Your task to perform on an android device: turn on showing notifications on the lock screen Image 0: 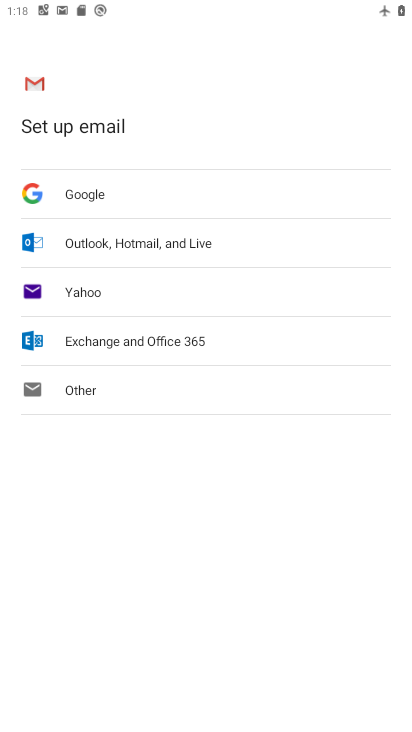
Step 0: press home button
Your task to perform on an android device: turn on showing notifications on the lock screen Image 1: 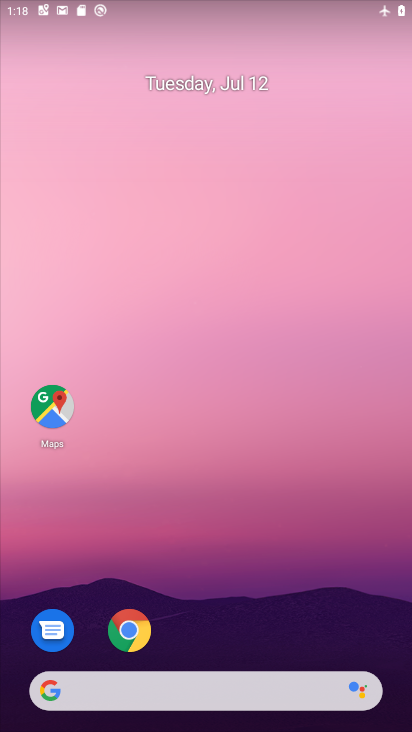
Step 1: drag from (281, 546) to (397, 207)
Your task to perform on an android device: turn on showing notifications on the lock screen Image 2: 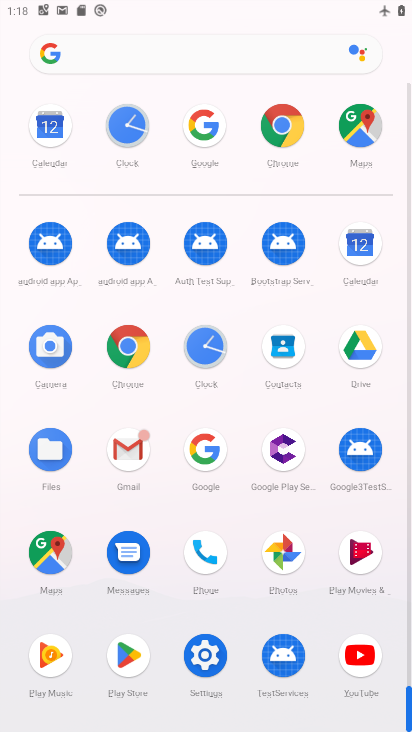
Step 2: click (197, 662)
Your task to perform on an android device: turn on showing notifications on the lock screen Image 3: 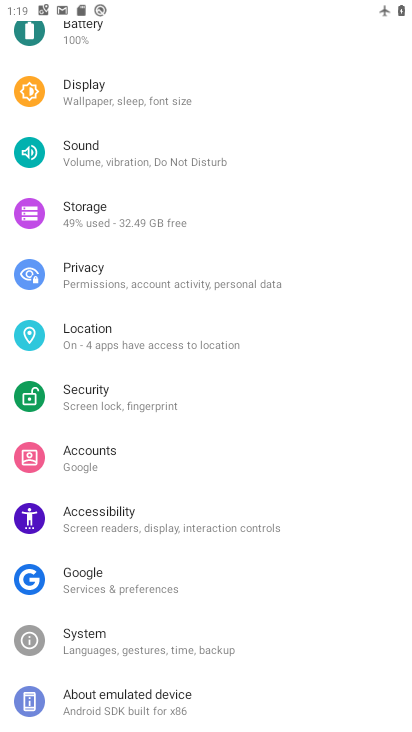
Step 3: drag from (184, 426) to (107, 731)
Your task to perform on an android device: turn on showing notifications on the lock screen Image 4: 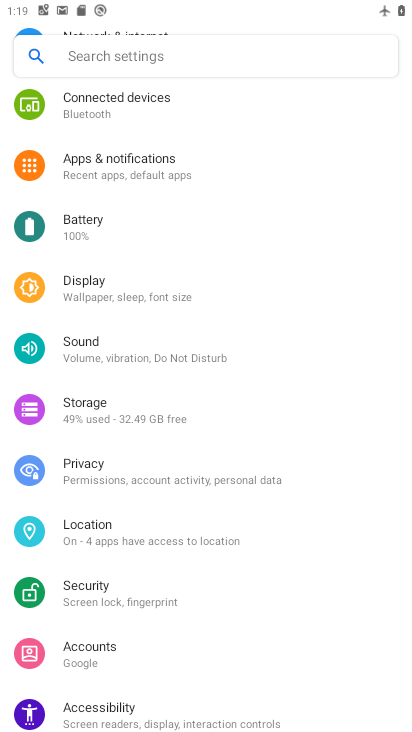
Step 4: click (178, 175)
Your task to perform on an android device: turn on showing notifications on the lock screen Image 5: 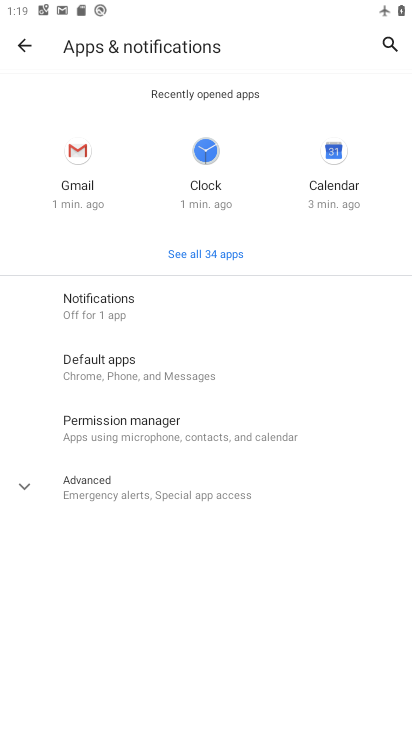
Step 5: click (183, 307)
Your task to perform on an android device: turn on showing notifications on the lock screen Image 6: 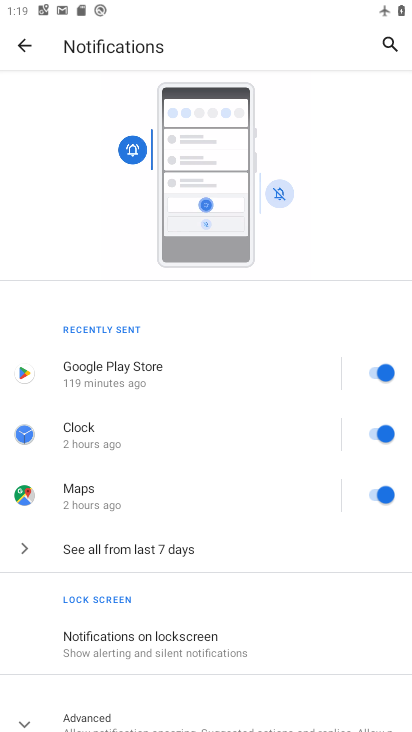
Step 6: click (203, 642)
Your task to perform on an android device: turn on showing notifications on the lock screen Image 7: 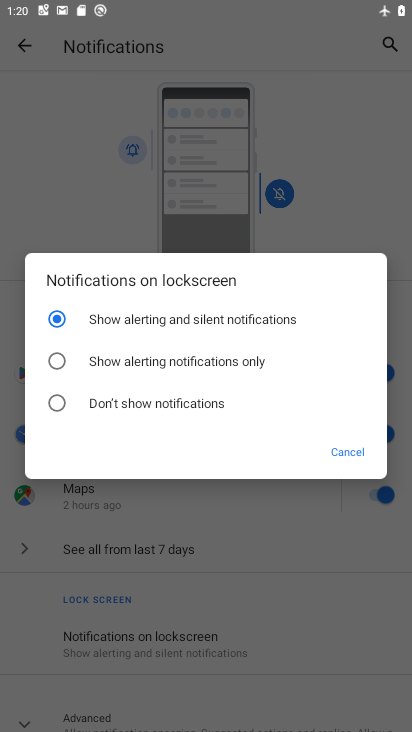
Step 7: task complete